Your task to perform on an android device: Open wifi settings Image 0: 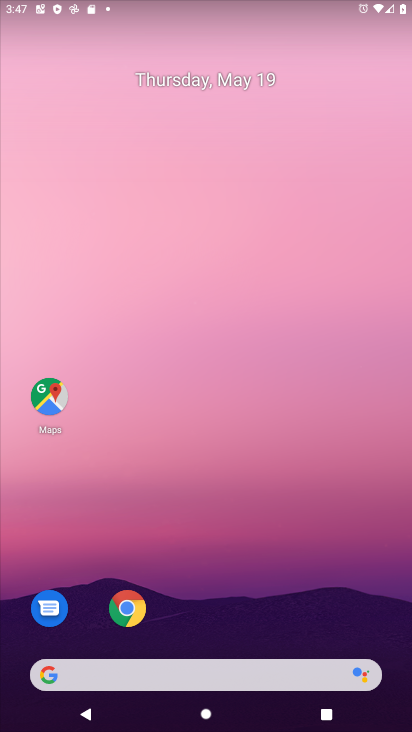
Step 0: drag from (246, 562) to (265, 119)
Your task to perform on an android device: Open wifi settings Image 1: 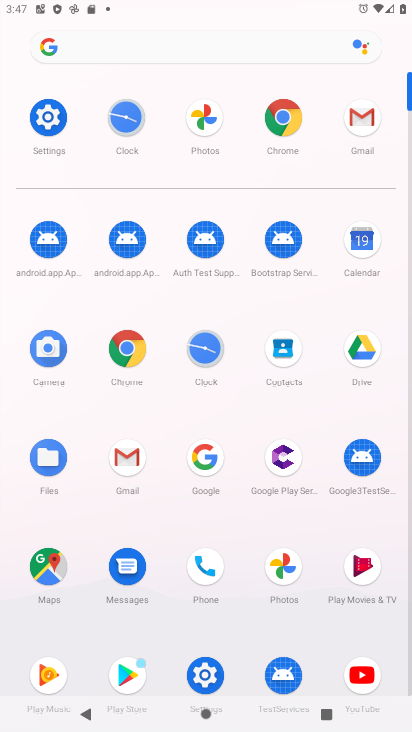
Step 1: click (25, 145)
Your task to perform on an android device: Open wifi settings Image 2: 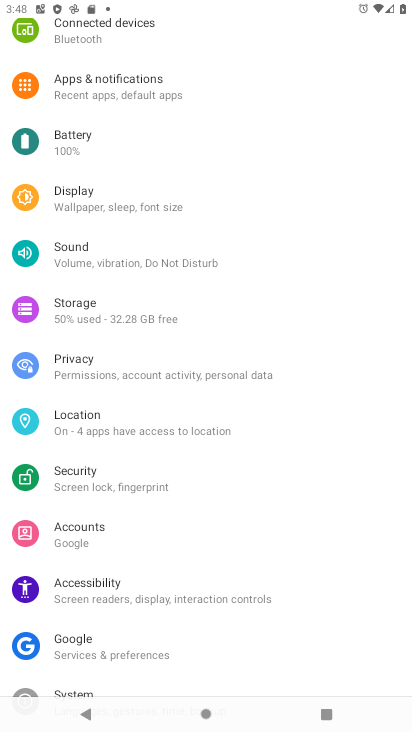
Step 2: drag from (122, 95) to (124, 319)
Your task to perform on an android device: Open wifi settings Image 3: 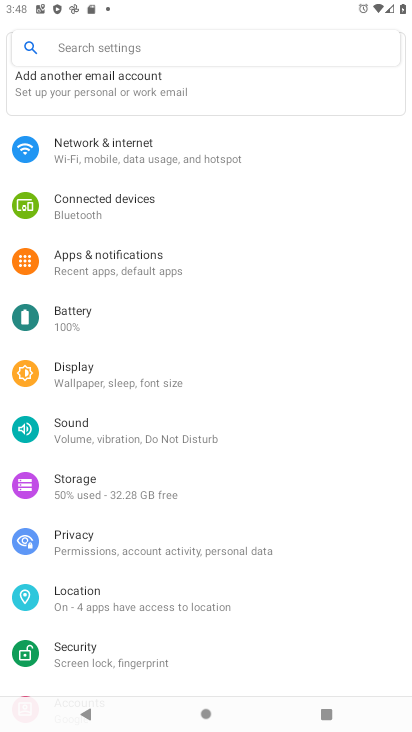
Step 3: click (134, 137)
Your task to perform on an android device: Open wifi settings Image 4: 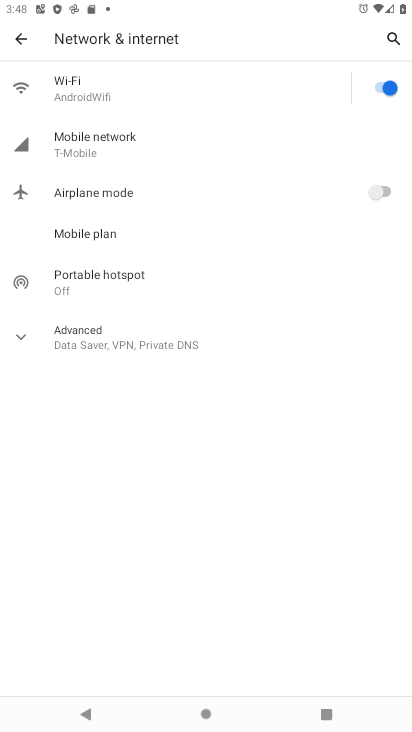
Step 4: task complete